Your task to perform on an android device: Open Chrome and go to settings Image 0: 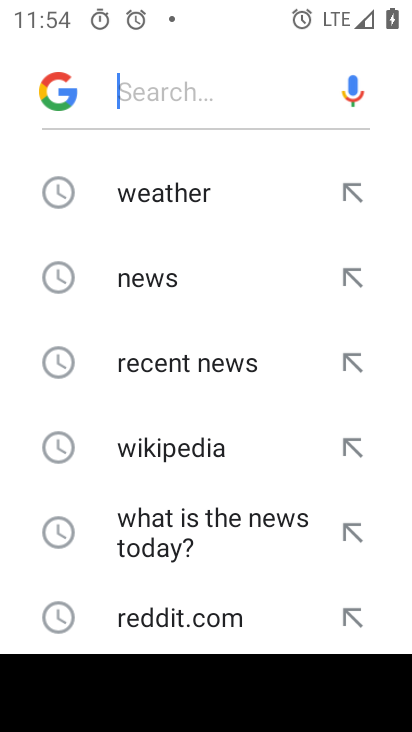
Step 0: press home button
Your task to perform on an android device: Open Chrome and go to settings Image 1: 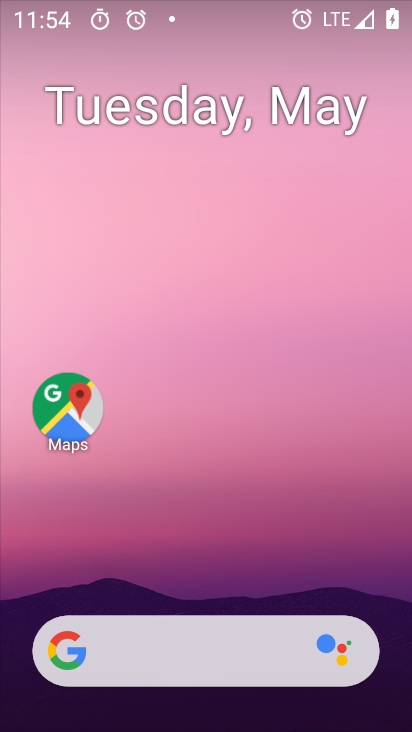
Step 1: drag from (263, 667) to (307, 167)
Your task to perform on an android device: Open Chrome and go to settings Image 2: 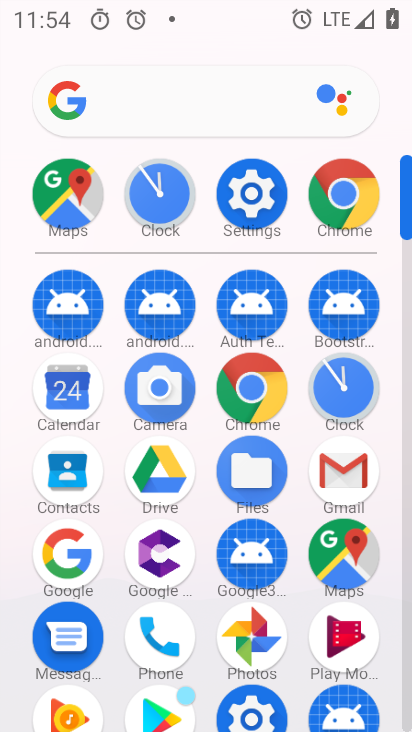
Step 2: click (330, 195)
Your task to perform on an android device: Open Chrome and go to settings Image 3: 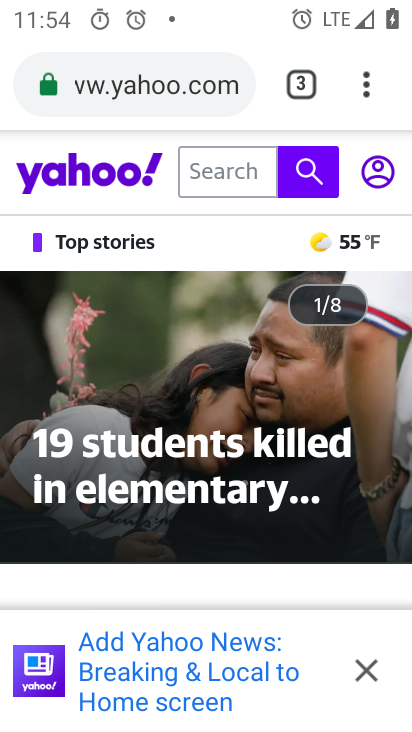
Step 3: task complete